Your task to perform on an android device: Open Youtube and go to "Your channel" Image 0: 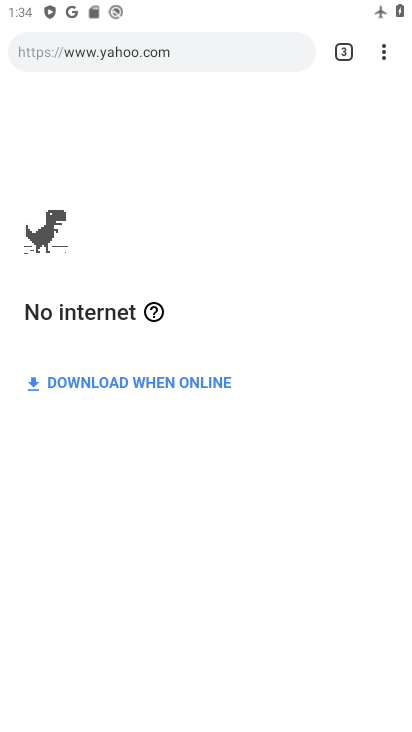
Step 0: press home button
Your task to perform on an android device: Open Youtube and go to "Your channel" Image 1: 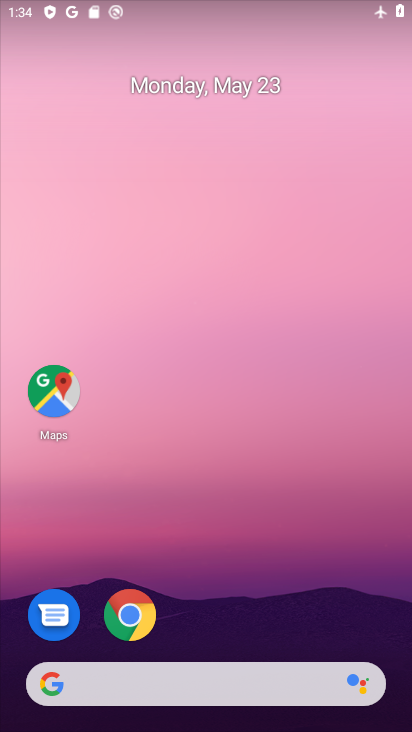
Step 1: drag from (236, 648) to (197, 71)
Your task to perform on an android device: Open Youtube and go to "Your channel" Image 2: 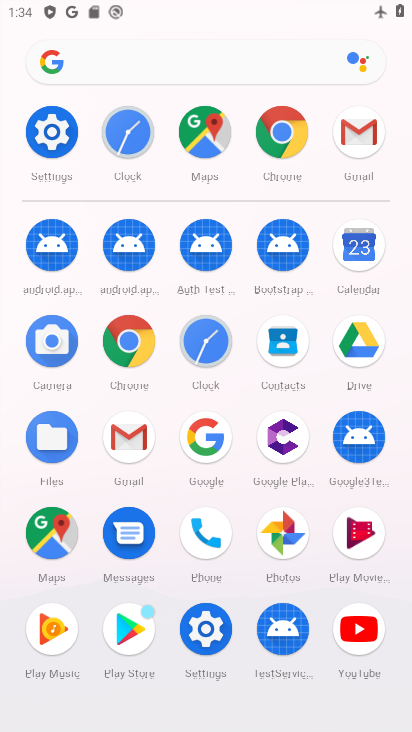
Step 2: click (337, 614)
Your task to perform on an android device: Open Youtube and go to "Your channel" Image 3: 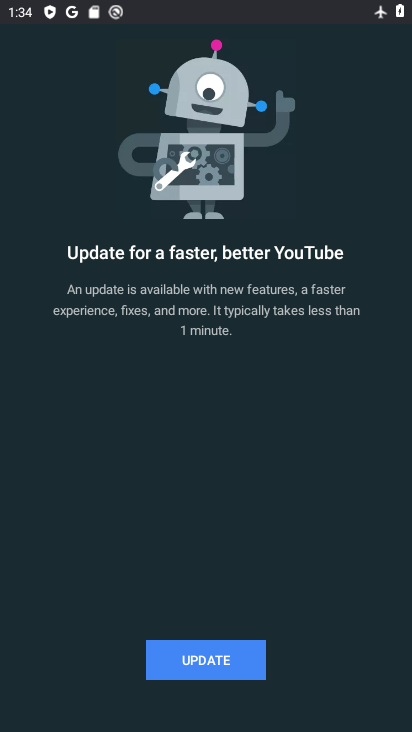
Step 3: click (203, 642)
Your task to perform on an android device: Open Youtube and go to "Your channel" Image 4: 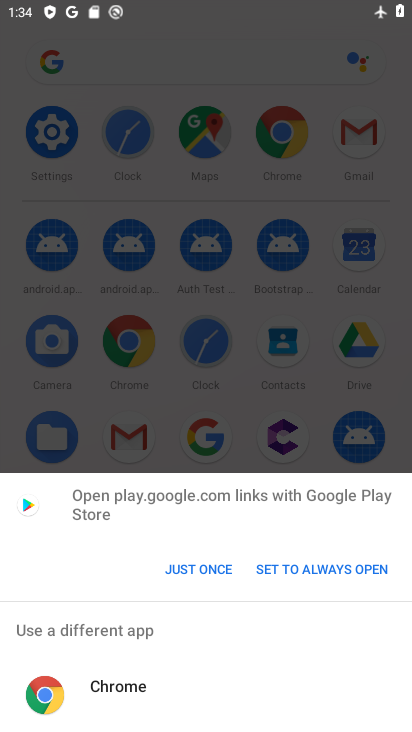
Step 4: click (296, 574)
Your task to perform on an android device: Open Youtube and go to "Your channel" Image 5: 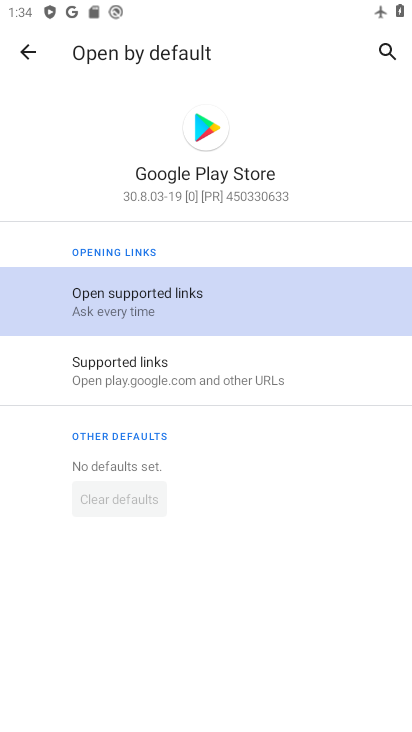
Step 5: task complete